Your task to perform on an android device: open app "HBO Max: Stream TV & Movies" (install if not already installed), go to login, and select forgot password Image 0: 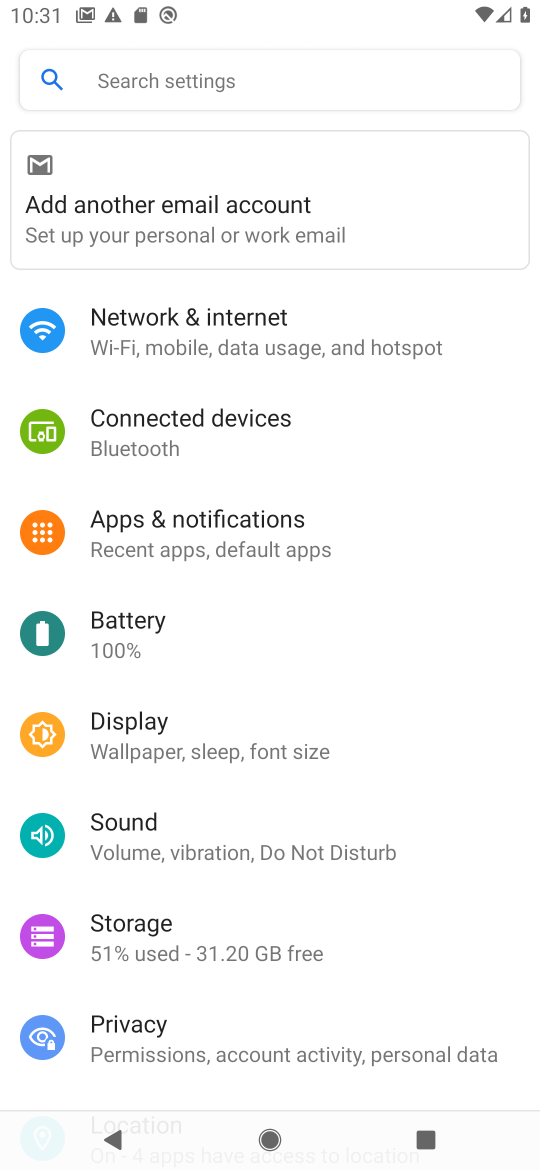
Step 0: press back button
Your task to perform on an android device: open app "HBO Max: Stream TV & Movies" (install if not already installed), go to login, and select forgot password Image 1: 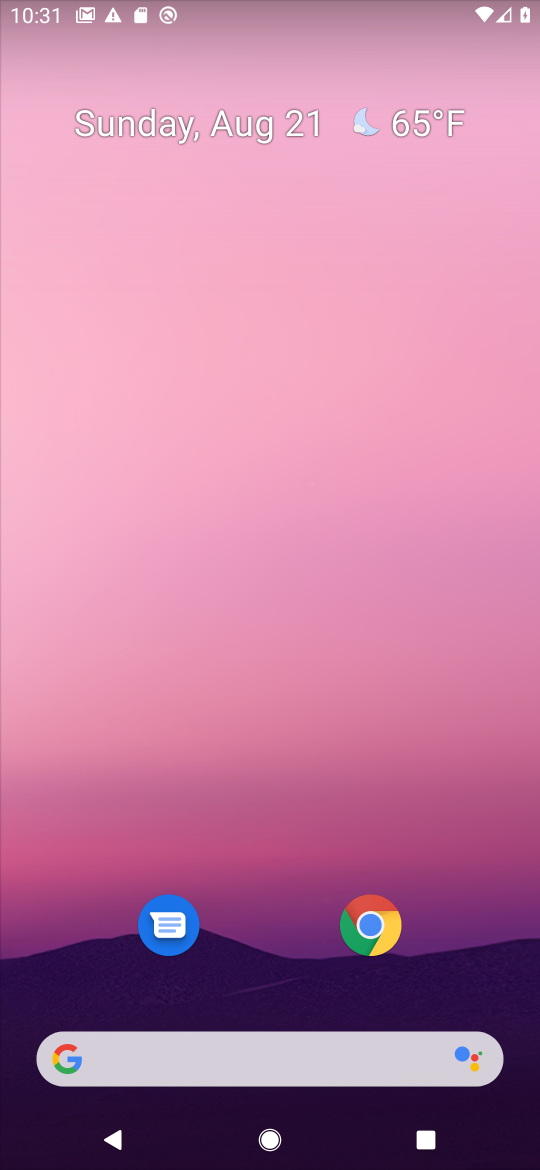
Step 1: drag from (311, 985) to (305, 45)
Your task to perform on an android device: open app "HBO Max: Stream TV & Movies" (install if not already installed), go to login, and select forgot password Image 2: 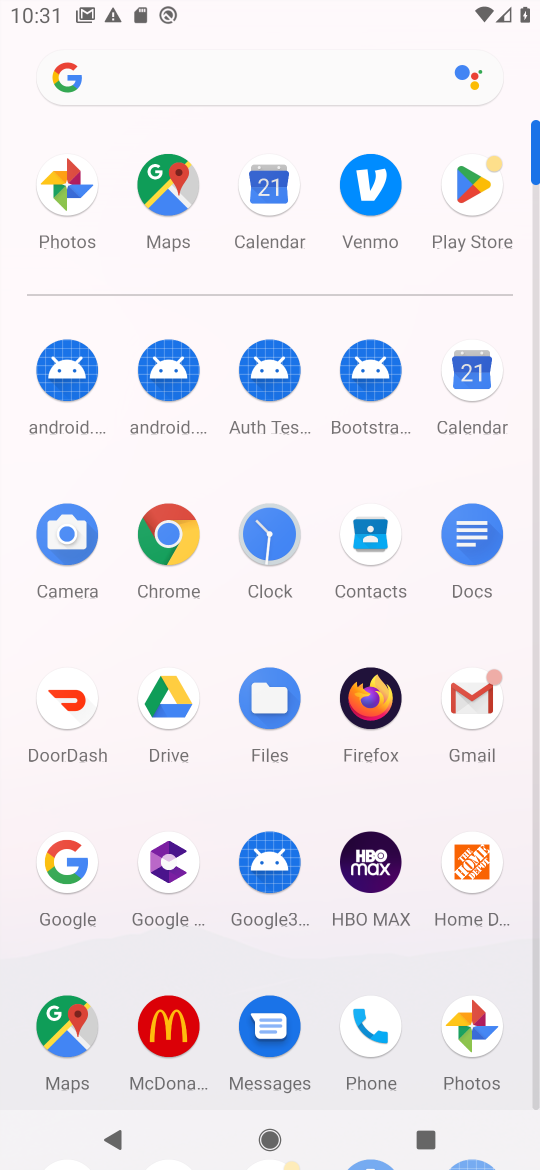
Step 2: click (474, 183)
Your task to perform on an android device: open app "HBO Max: Stream TV & Movies" (install if not already installed), go to login, and select forgot password Image 3: 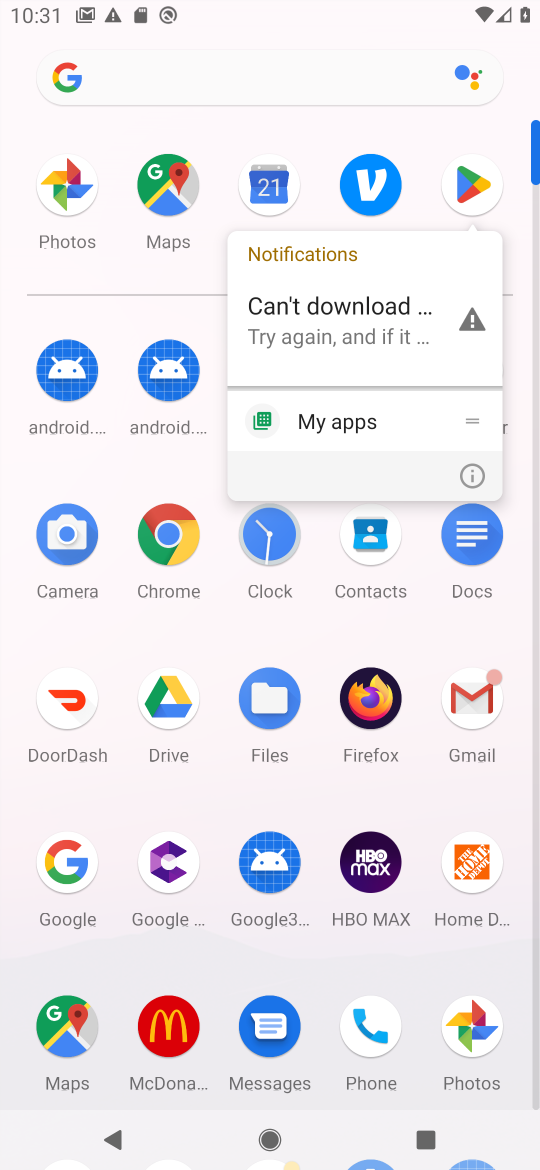
Step 3: click (474, 183)
Your task to perform on an android device: open app "HBO Max: Stream TV & Movies" (install if not already installed), go to login, and select forgot password Image 4: 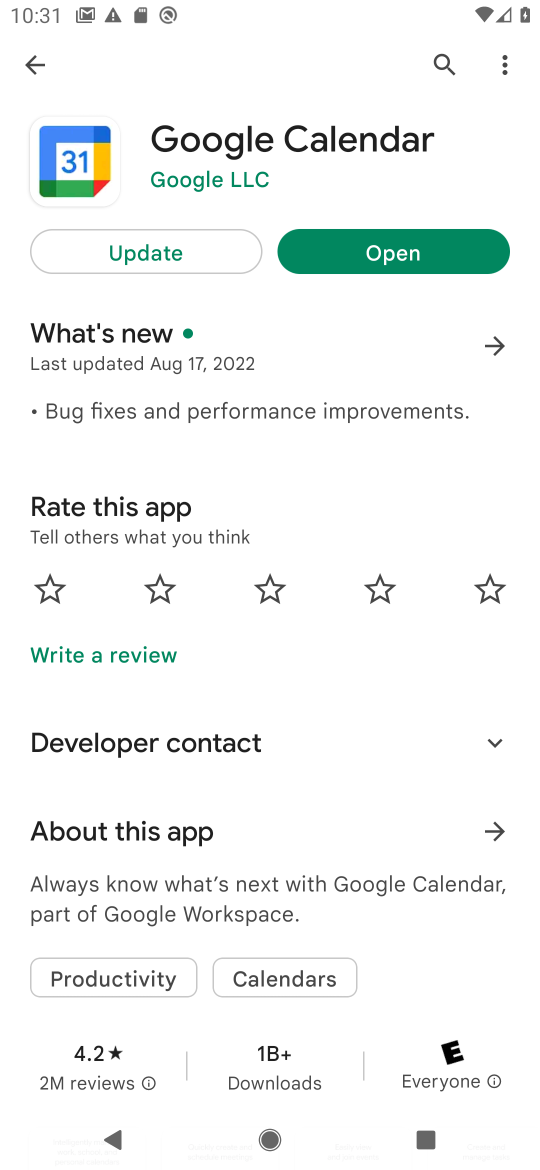
Step 4: click (427, 71)
Your task to perform on an android device: open app "HBO Max: Stream TV & Movies" (install if not already installed), go to login, and select forgot password Image 5: 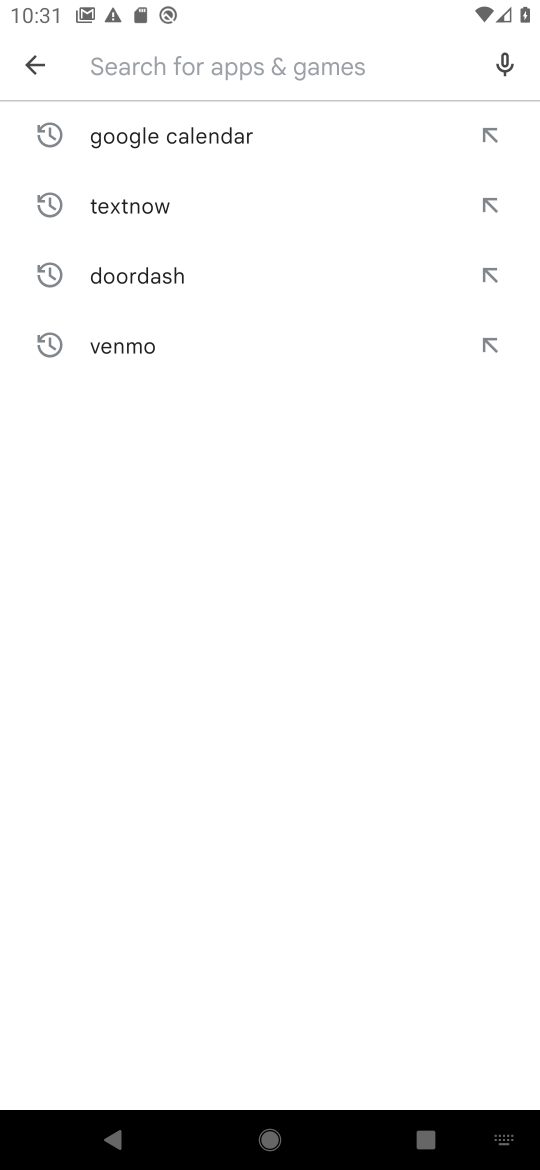
Step 5: click (167, 58)
Your task to perform on an android device: open app "HBO Max: Stream TV & Movies" (install if not already installed), go to login, and select forgot password Image 6: 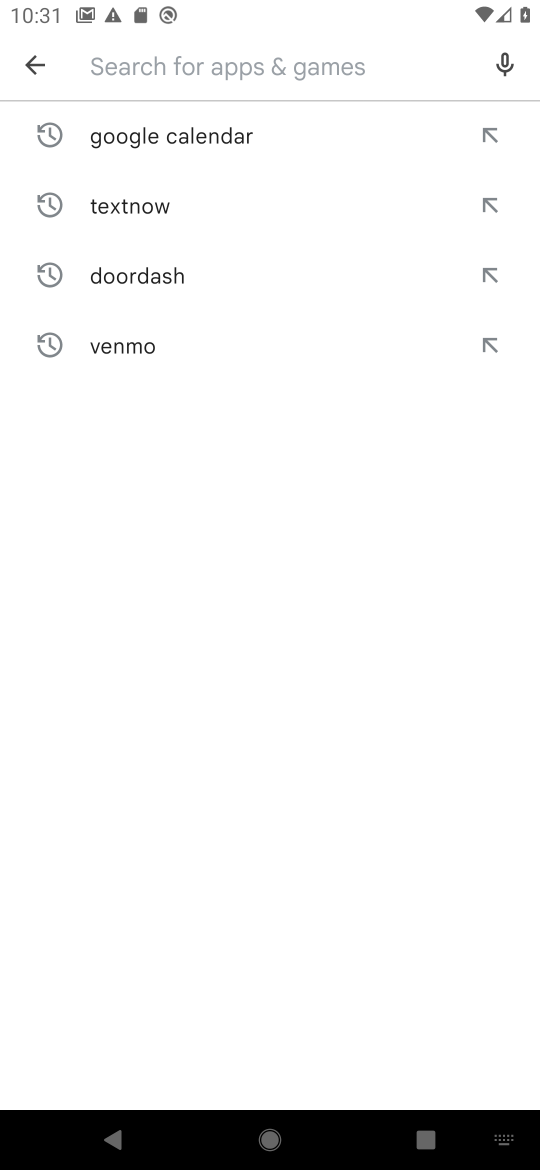
Step 6: type "hbo"
Your task to perform on an android device: open app "HBO Max: Stream TV & Movies" (install if not already installed), go to login, and select forgot password Image 7: 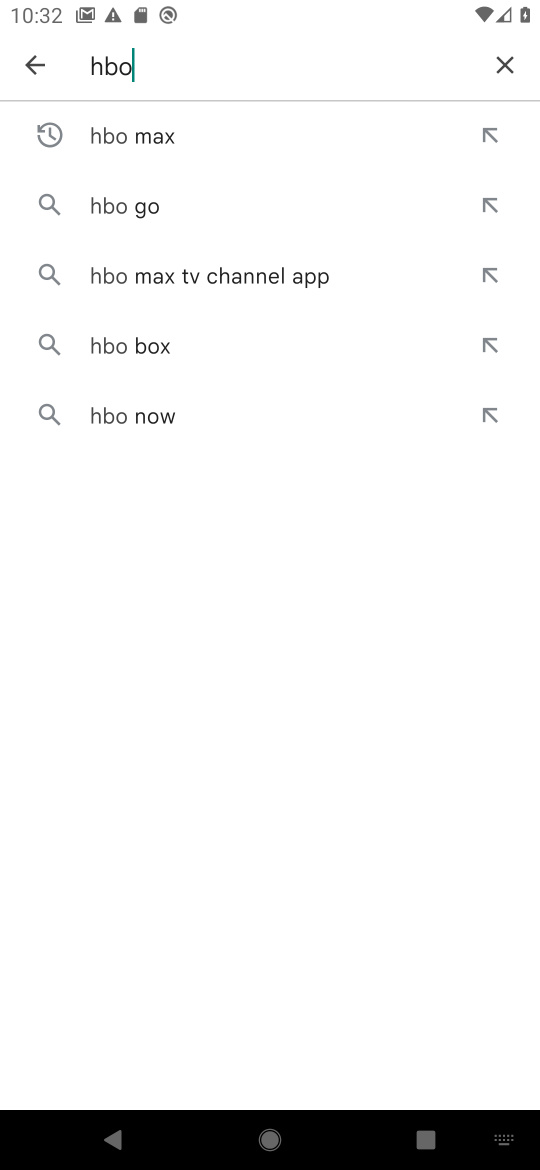
Step 7: click (155, 111)
Your task to perform on an android device: open app "HBO Max: Stream TV & Movies" (install if not already installed), go to login, and select forgot password Image 8: 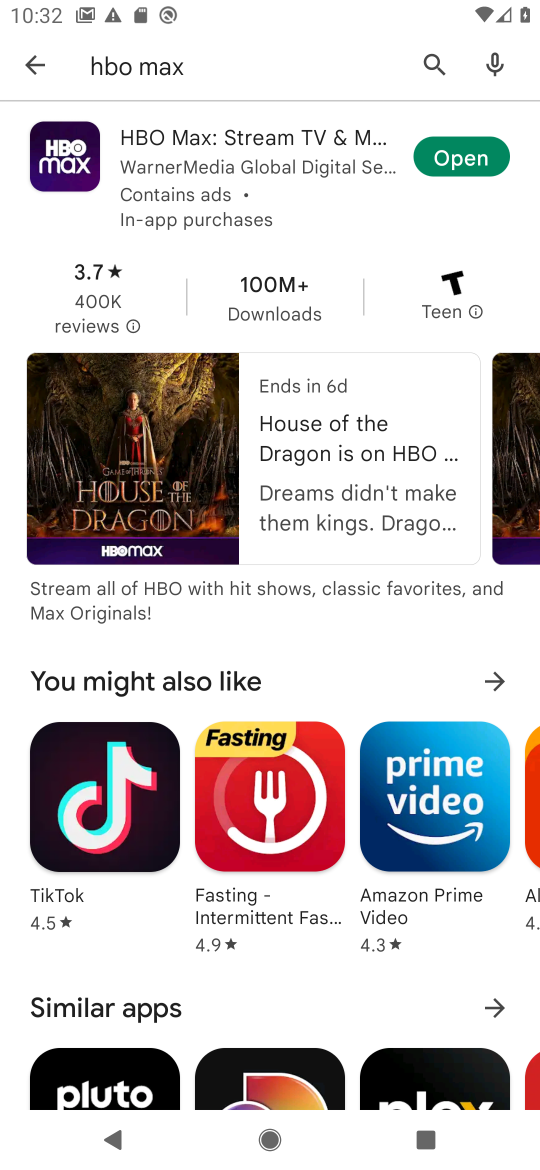
Step 8: click (471, 150)
Your task to perform on an android device: open app "HBO Max: Stream TV & Movies" (install if not already installed), go to login, and select forgot password Image 9: 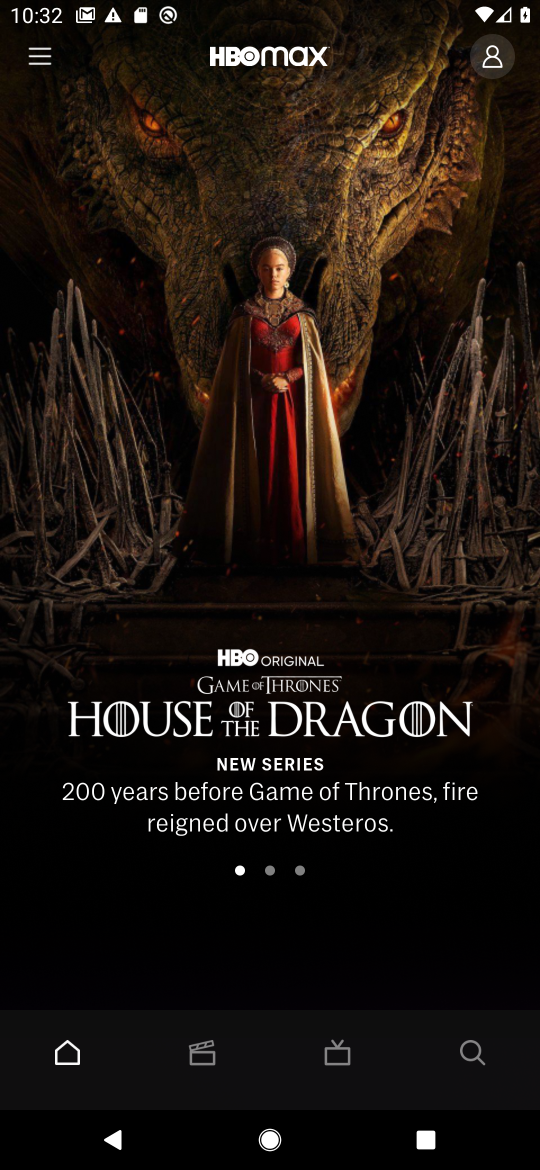
Step 9: click (486, 58)
Your task to perform on an android device: open app "HBO Max: Stream TV & Movies" (install if not already installed), go to login, and select forgot password Image 10: 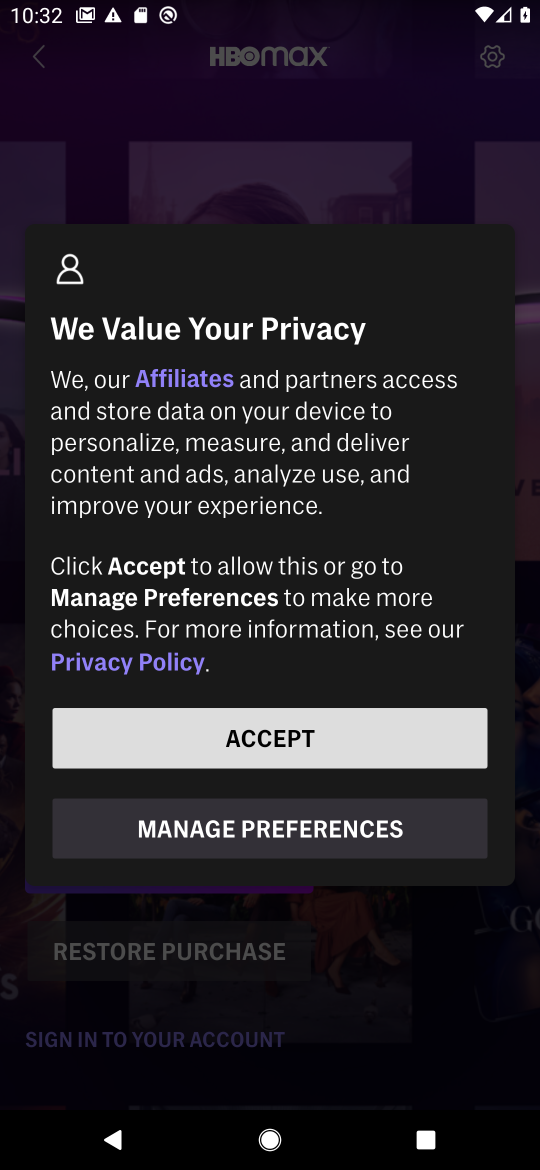
Step 10: click (274, 746)
Your task to perform on an android device: open app "HBO Max: Stream TV & Movies" (install if not already installed), go to login, and select forgot password Image 11: 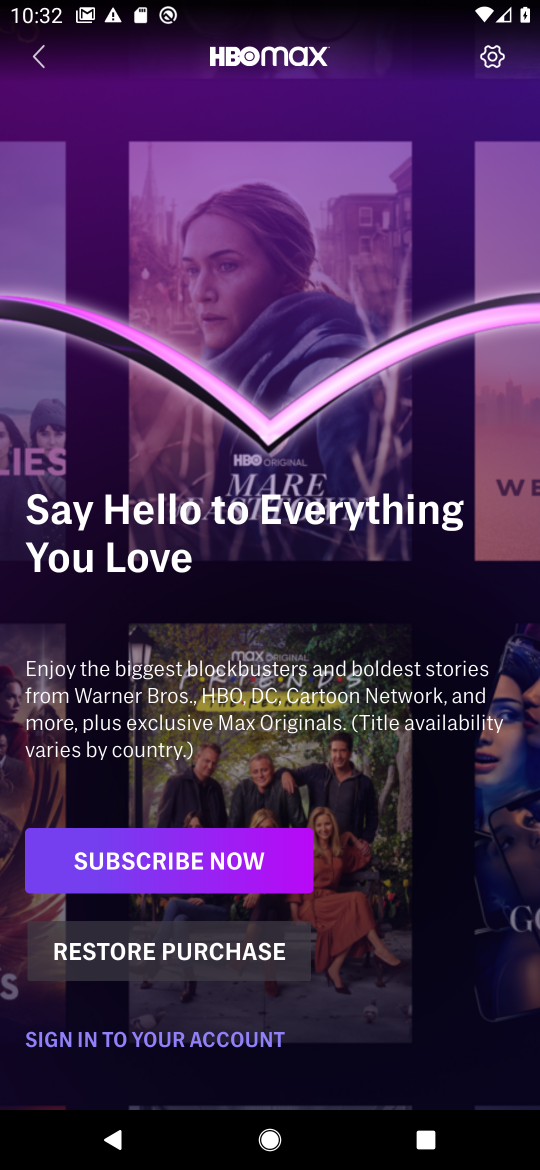
Step 11: click (166, 1042)
Your task to perform on an android device: open app "HBO Max: Stream TV & Movies" (install if not already installed), go to login, and select forgot password Image 12: 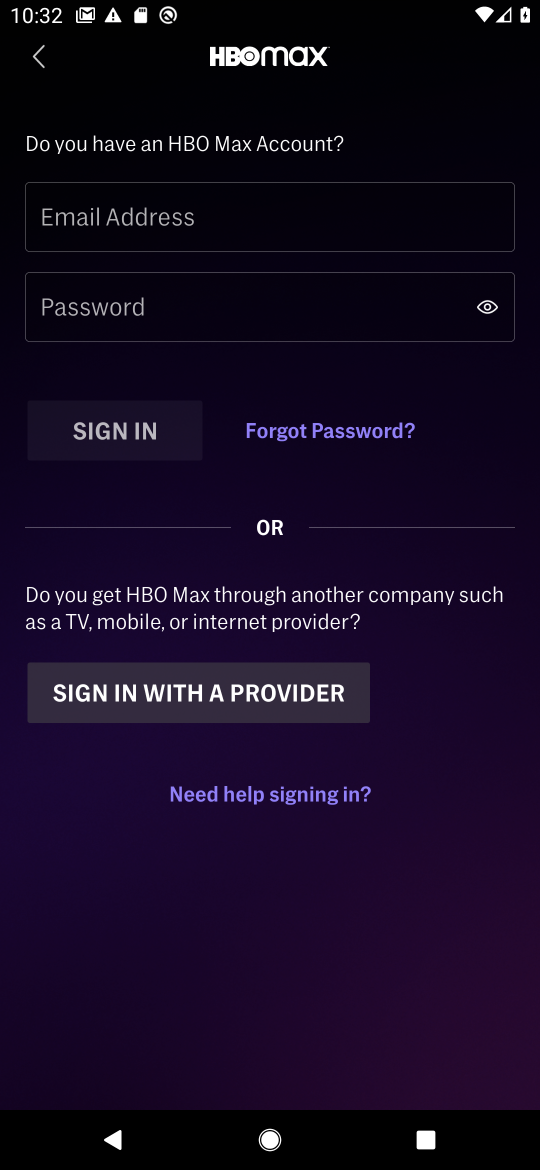
Step 12: click (331, 432)
Your task to perform on an android device: open app "HBO Max: Stream TV & Movies" (install if not already installed), go to login, and select forgot password Image 13: 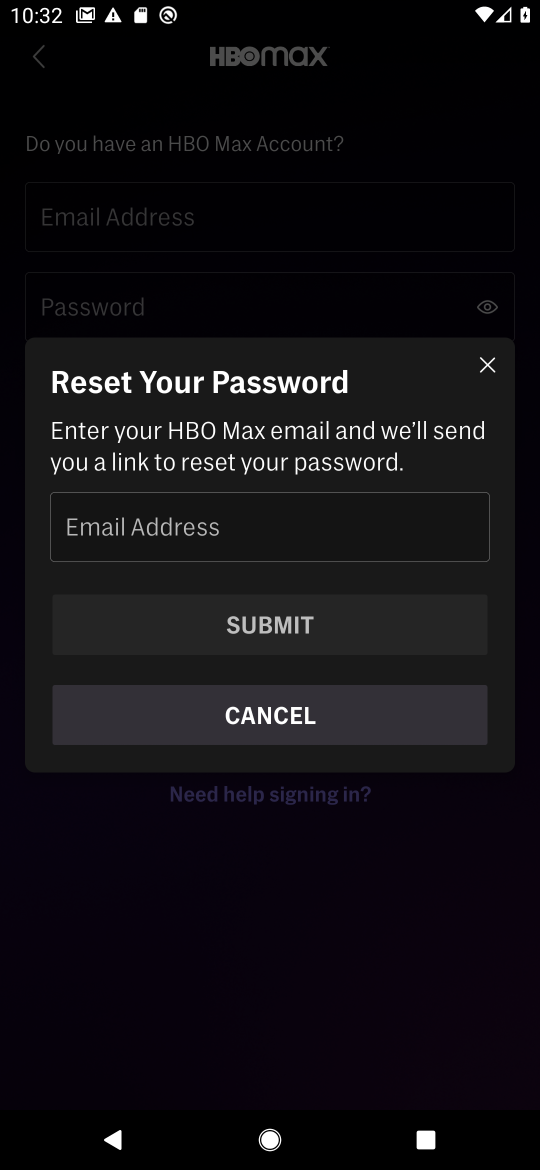
Step 13: task complete